Your task to perform on an android device: turn off wifi Image 0: 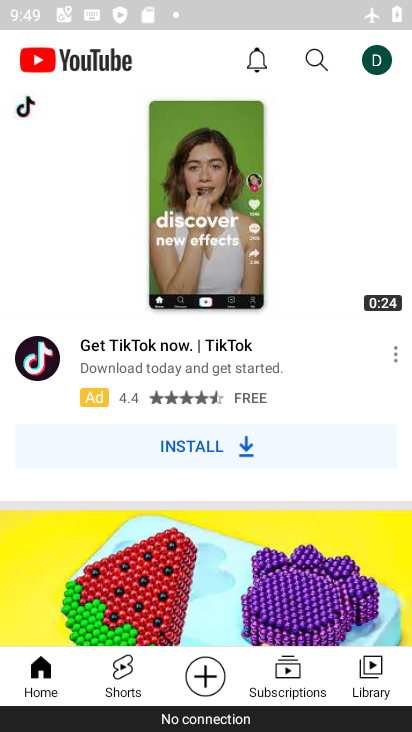
Step 0: press home button
Your task to perform on an android device: turn off wifi Image 1: 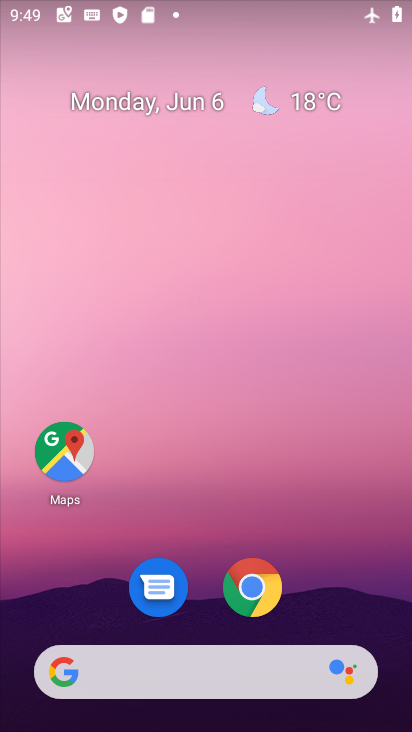
Step 1: drag from (344, 554) to (248, 75)
Your task to perform on an android device: turn off wifi Image 2: 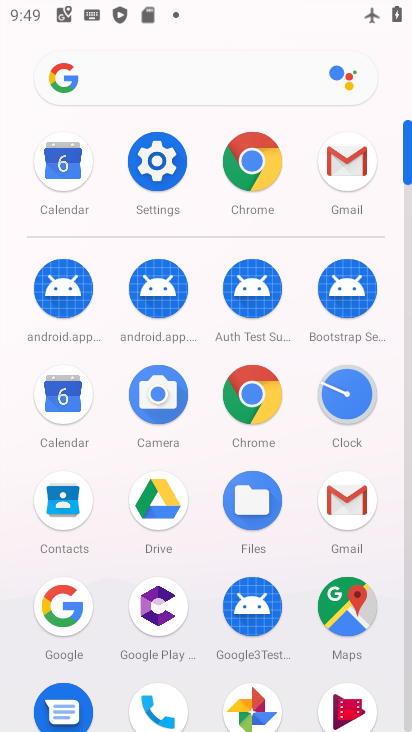
Step 2: click (158, 149)
Your task to perform on an android device: turn off wifi Image 3: 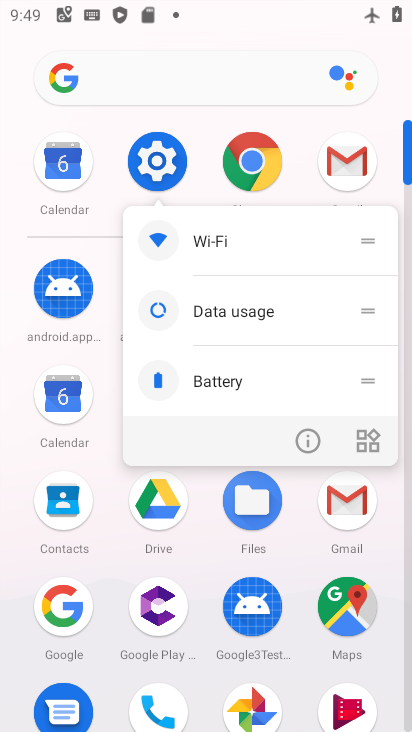
Step 3: click (157, 151)
Your task to perform on an android device: turn off wifi Image 4: 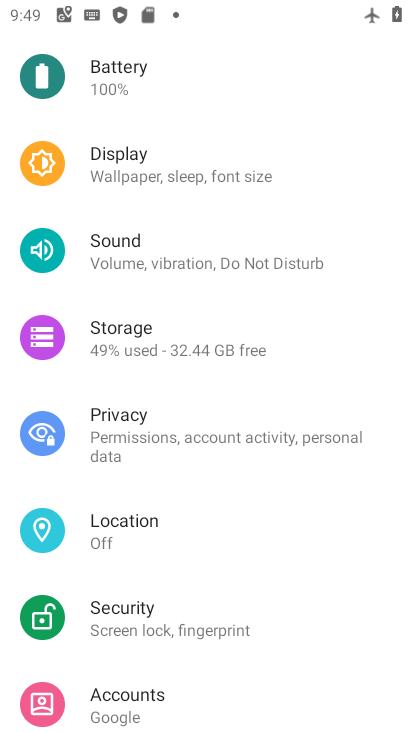
Step 4: drag from (181, 131) to (181, 714)
Your task to perform on an android device: turn off wifi Image 5: 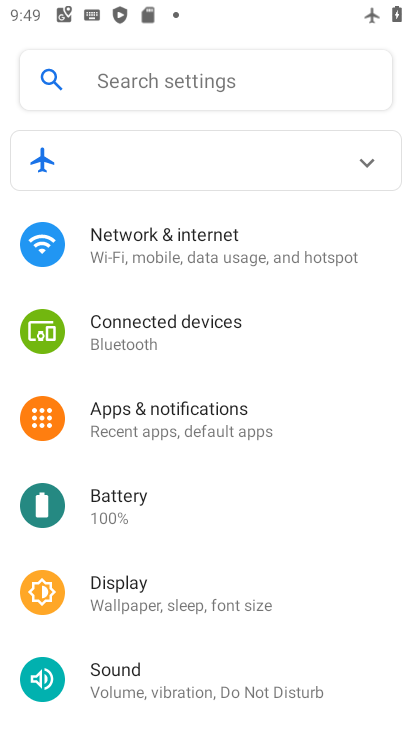
Step 5: click (205, 262)
Your task to perform on an android device: turn off wifi Image 6: 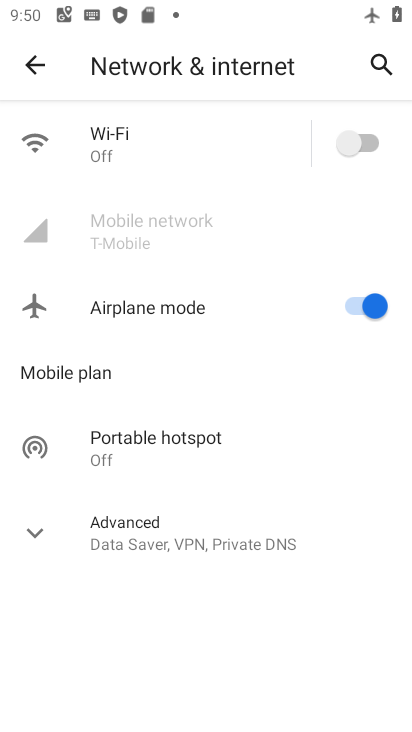
Step 6: task complete